Your task to perform on an android device: find photos in the google photos app Image 0: 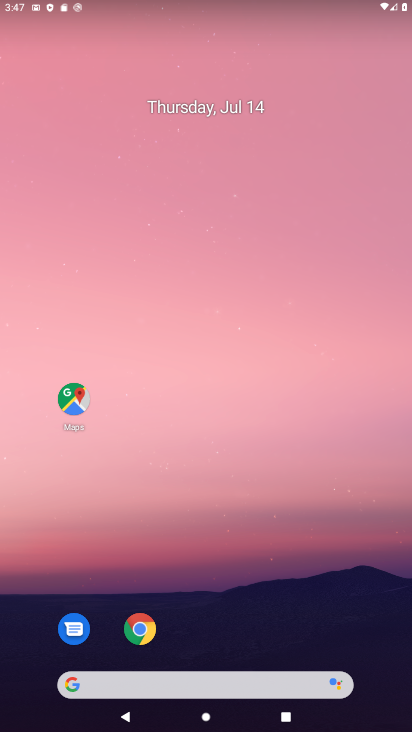
Step 0: drag from (16, 698) to (218, 200)
Your task to perform on an android device: find photos in the google photos app Image 1: 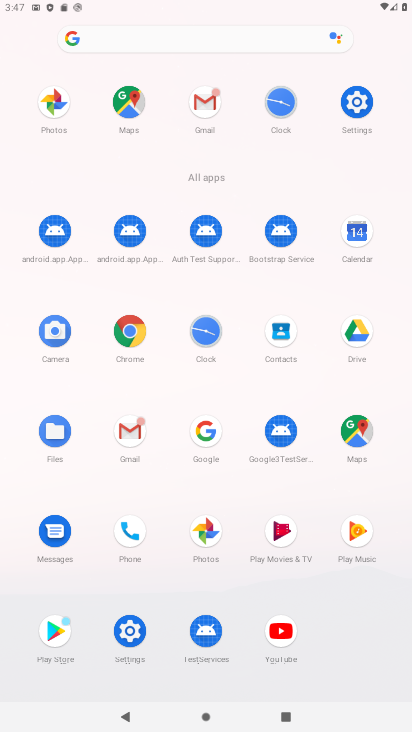
Step 1: click (211, 528)
Your task to perform on an android device: find photos in the google photos app Image 2: 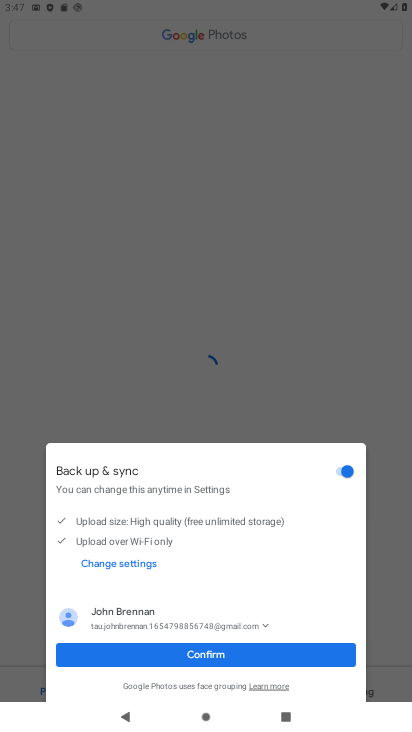
Step 2: click (139, 658)
Your task to perform on an android device: find photos in the google photos app Image 3: 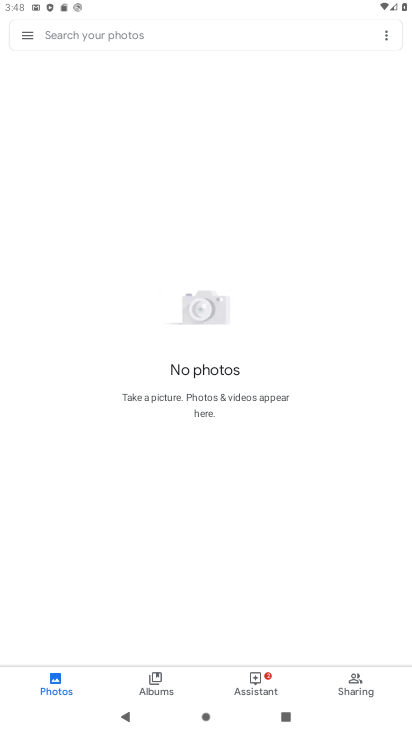
Step 3: task complete